Your task to perform on an android device: toggle javascript in the chrome app Image 0: 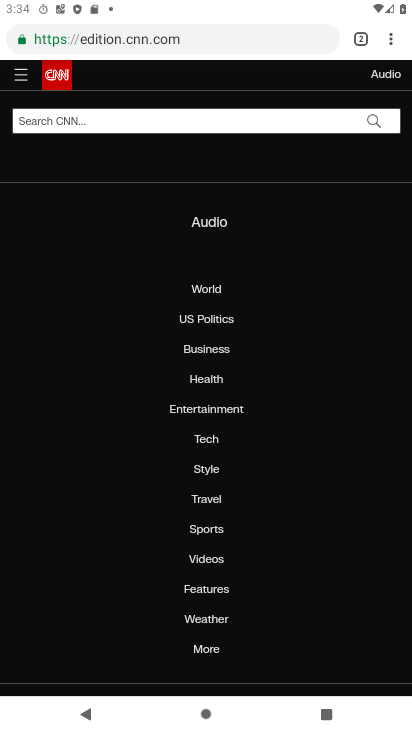
Step 0: press home button
Your task to perform on an android device: toggle javascript in the chrome app Image 1: 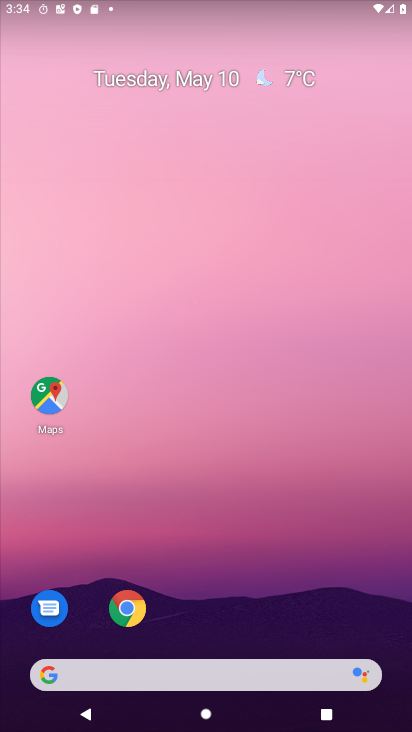
Step 1: click (133, 612)
Your task to perform on an android device: toggle javascript in the chrome app Image 2: 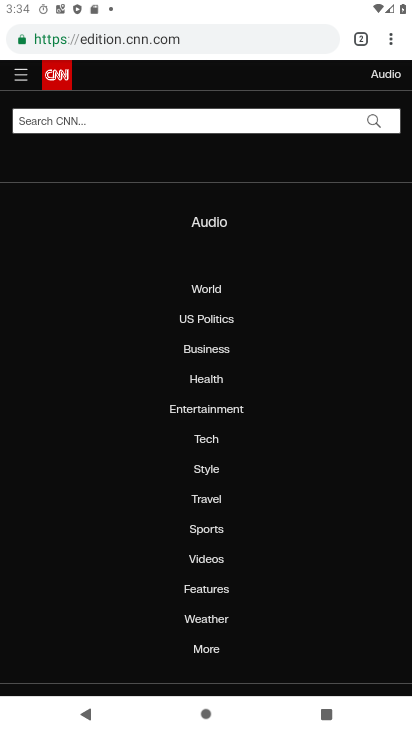
Step 2: drag from (390, 43) to (266, 467)
Your task to perform on an android device: toggle javascript in the chrome app Image 3: 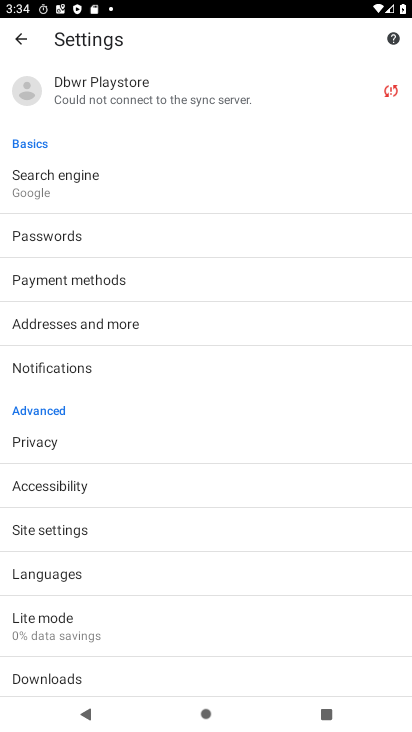
Step 3: click (65, 532)
Your task to perform on an android device: toggle javascript in the chrome app Image 4: 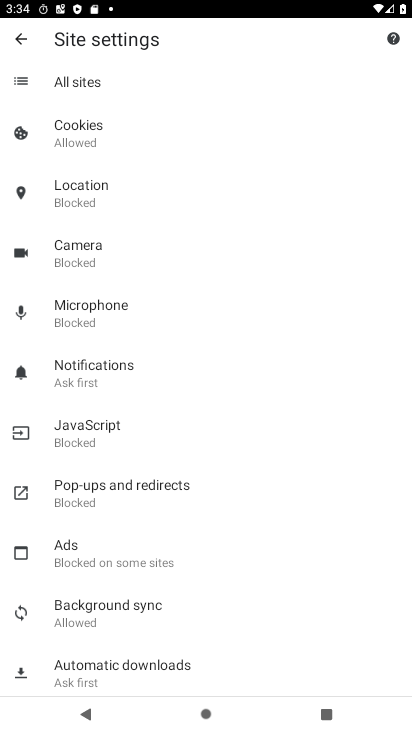
Step 4: click (70, 435)
Your task to perform on an android device: toggle javascript in the chrome app Image 5: 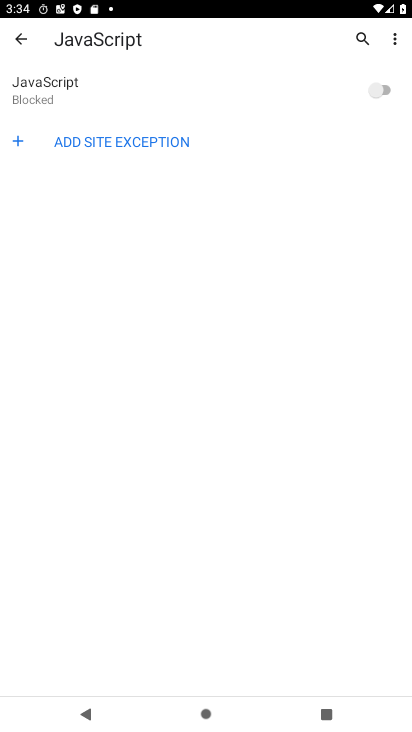
Step 5: click (377, 89)
Your task to perform on an android device: toggle javascript in the chrome app Image 6: 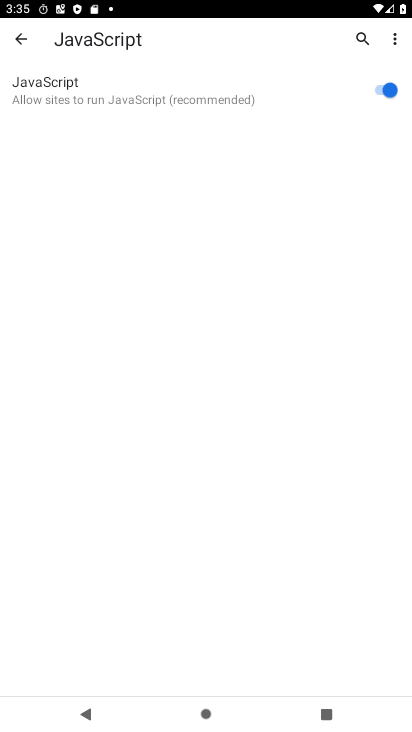
Step 6: task complete